Your task to perform on an android device: star an email in the gmail app Image 0: 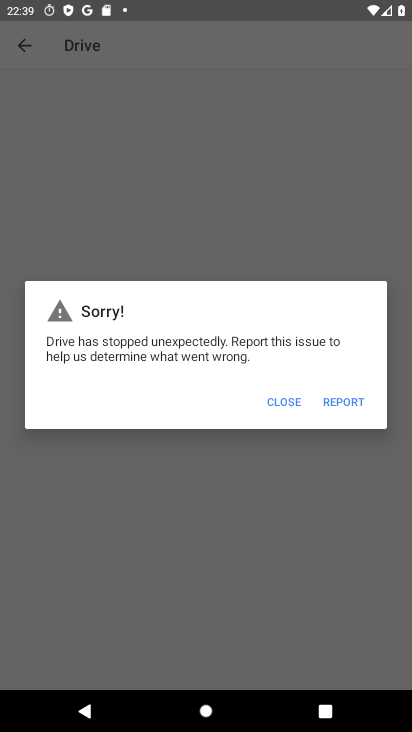
Step 0: press home button
Your task to perform on an android device: star an email in the gmail app Image 1: 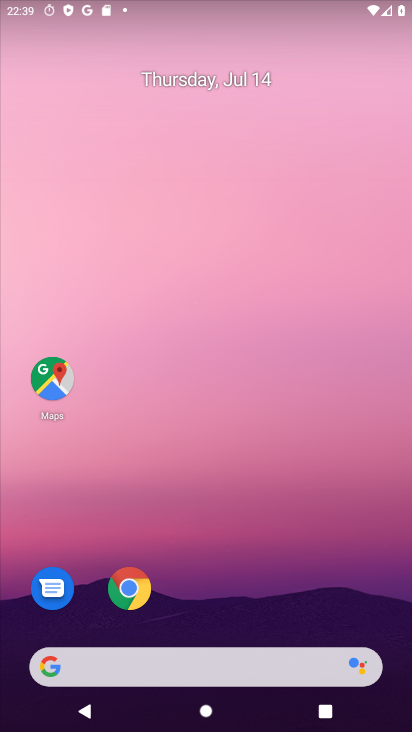
Step 1: drag from (195, 607) to (185, 111)
Your task to perform on an android device: star an email in the gmail app Image 2: 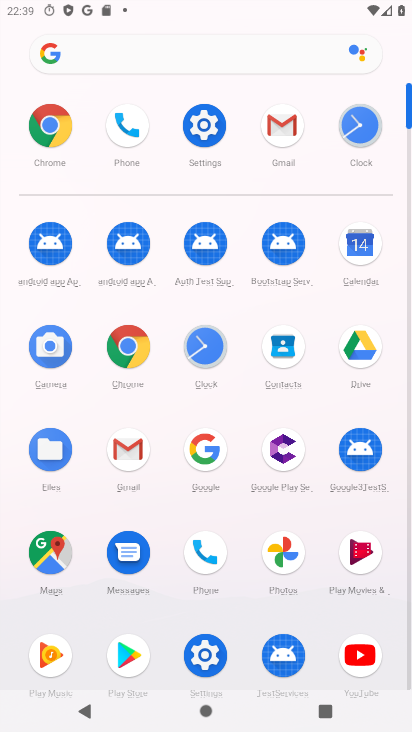
Step 2: click (284, 126)
Your task to perform on an android device: star an email in the gmail app Image 3: 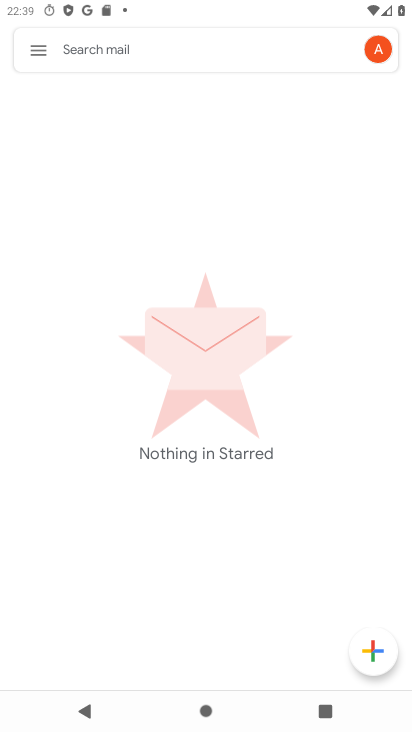
Step 3: click (37, 56)
Your task to perform on an android device: star an email in the gmail app Image 4: 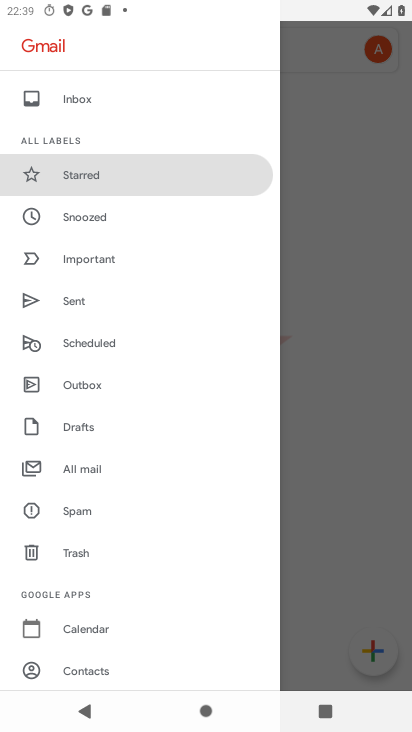
Step 4: click (95, 473)
Your task to perform on an android device: star an email in the gmail app Image 5: 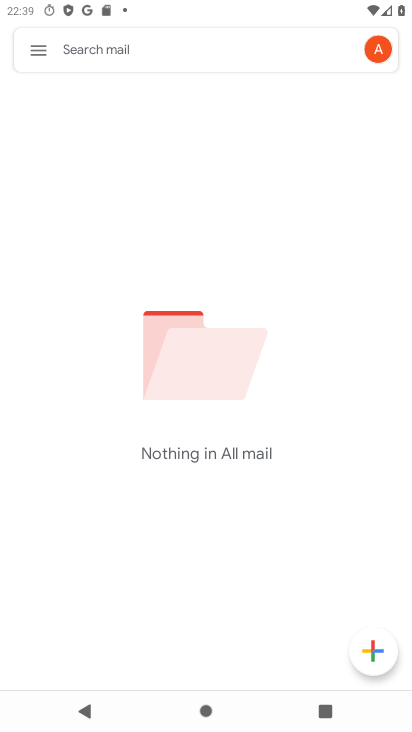
Step 5: task complete